Your task to perform on an android device: Is it going to rain this weekend? Image 0: 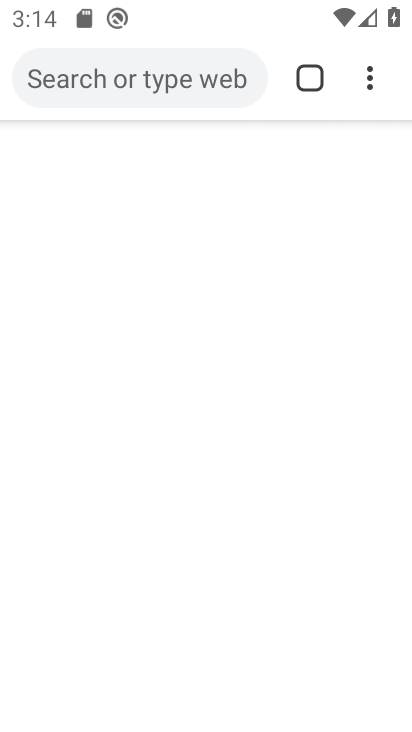
Step 0: drag from (190, 616) to (198, 516)
Your task to perform on an android device: Is it going to rain this weekend? Image 1: 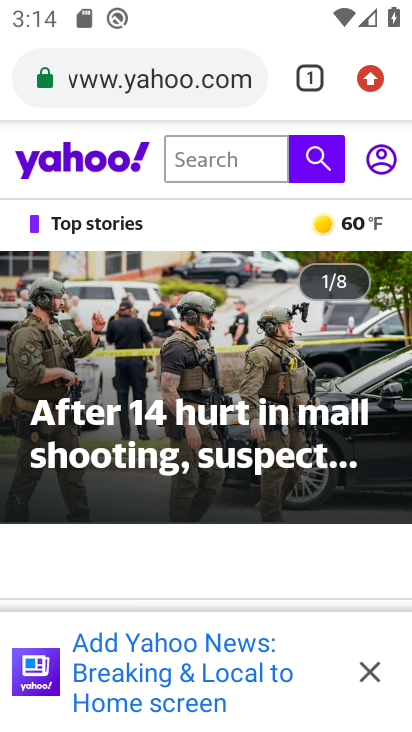
Step 1: press home button
Your task to perform on an android device: Is it going to rain this weekend? Image 2: 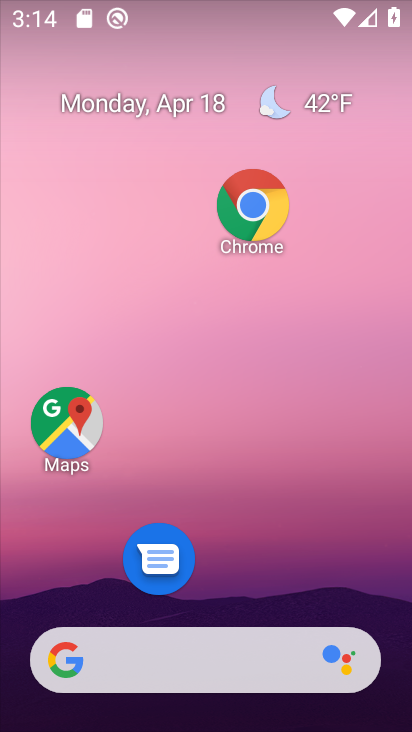
Step 2: click (258, 213)
Your task to perform on an android device: Is it going to rain this weekend? Image 3: 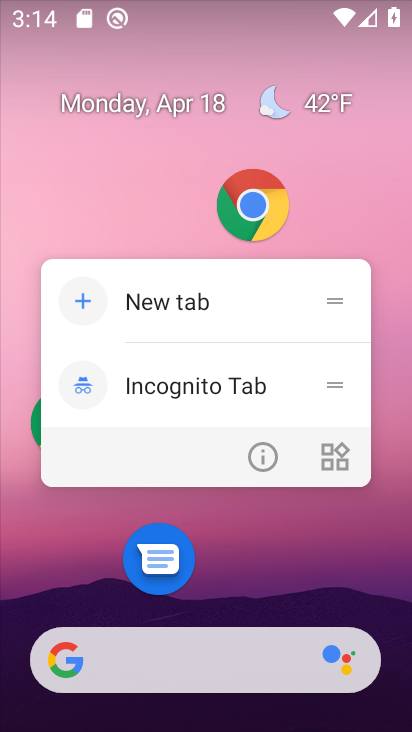
Step 3: drag from (259, 598) to (318, 160)
Your task to perform on an android device: Is it going to rain this weekend? Image 4: 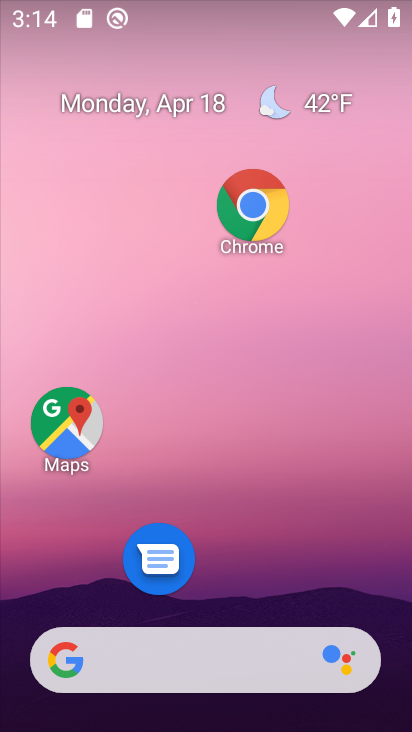
Step 4: click (245, 219)
Your task to perform on an android device: Is it going to rain this weekend? Image 5: 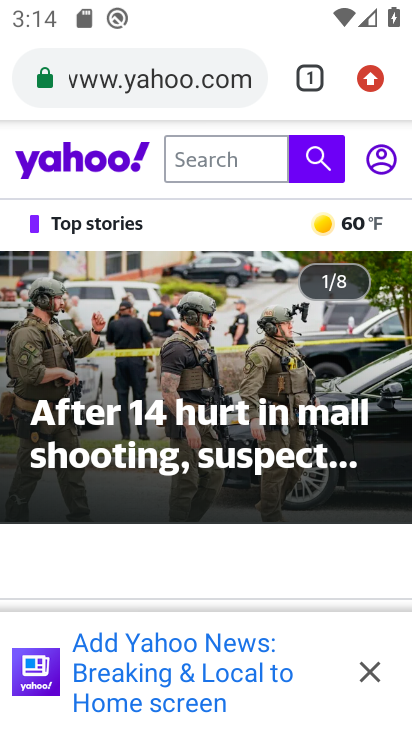
Step 5: click (169, 86)
Your task to perform on an android device: Is it going to rain this weekend? Image 6: 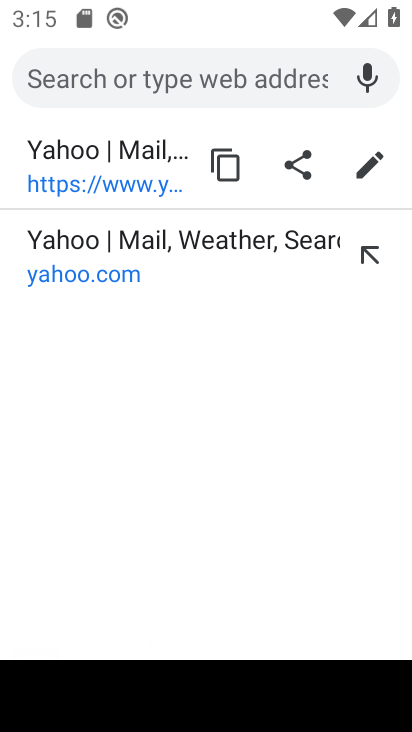
Step 6: type "is it going to rain this weekend?"
Your task to perform on an android device: Is it going to rain this weekend? Image 7: 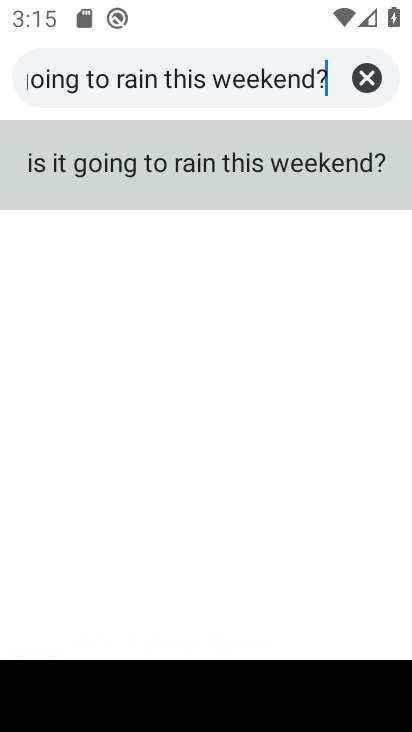
Step 7: click (256, 146)
Your task to perform on an android device: Is it going to rain this weekend? Image 8: 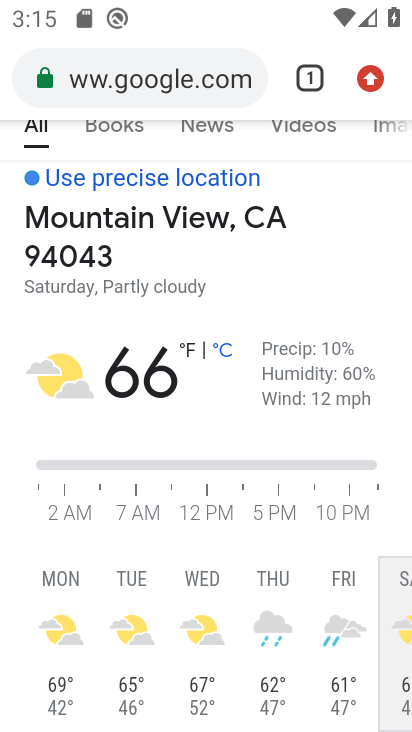
Step 8: task complete